Your task to perform on an android device: Open privacy settings Image 0: 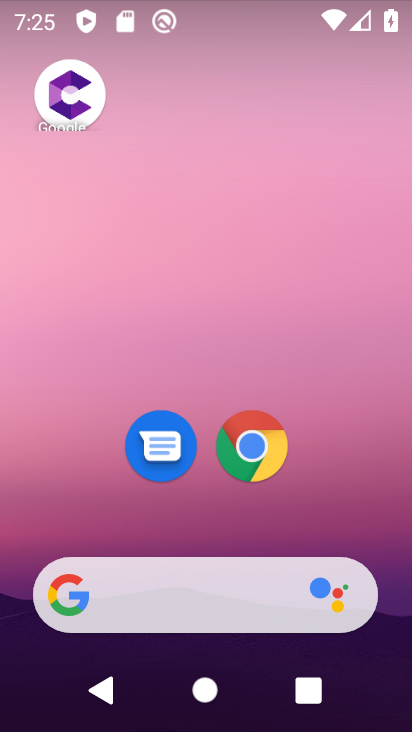
Step 0: drag from (399, 651) to (298, 0)
Your task to perform on an android device: Open privacy settings Image 1: 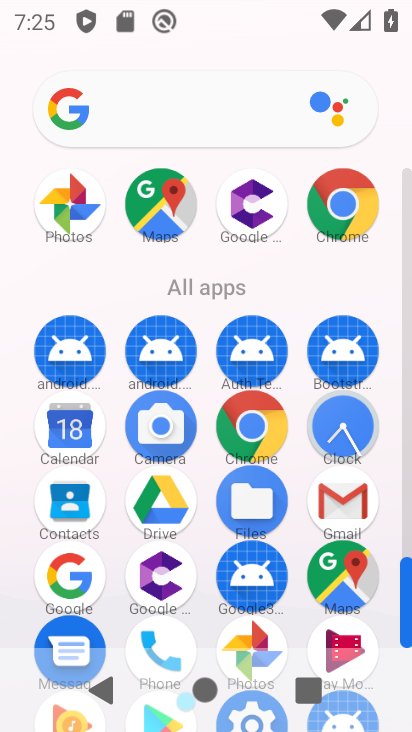
Step 1: drag from (6, 520) to (8, 198)
Your task to perform on an android device: Open privacy settings Image 2: 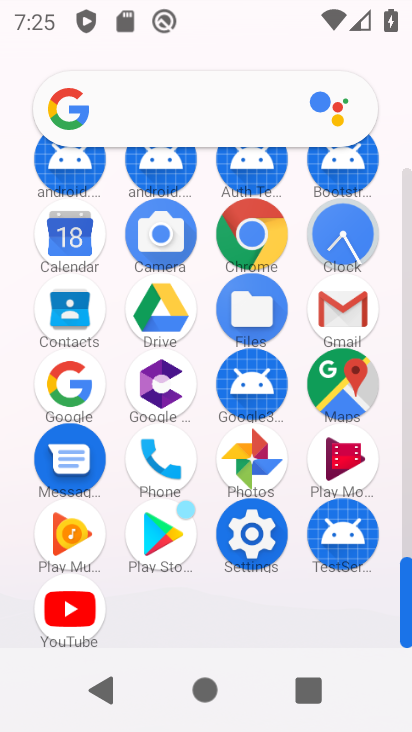
Step 2: click (249, 534)
Your task to perform on an android device: Open privacy settings Image 3: 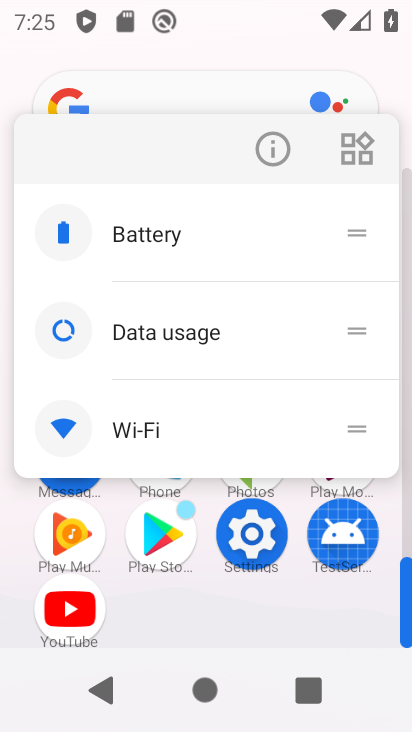
Step 3: press back button
Your task to perform on an android device: Open privacy settings Image 4: 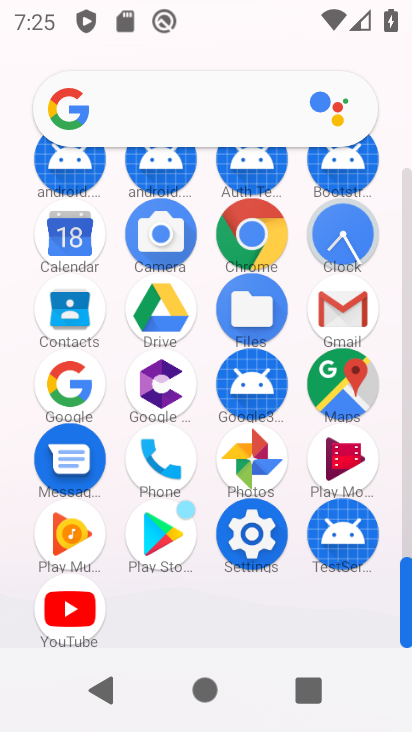
Step 4: click (254, 530)
Your task to perform on an android device: Open privacy settings Image 5: 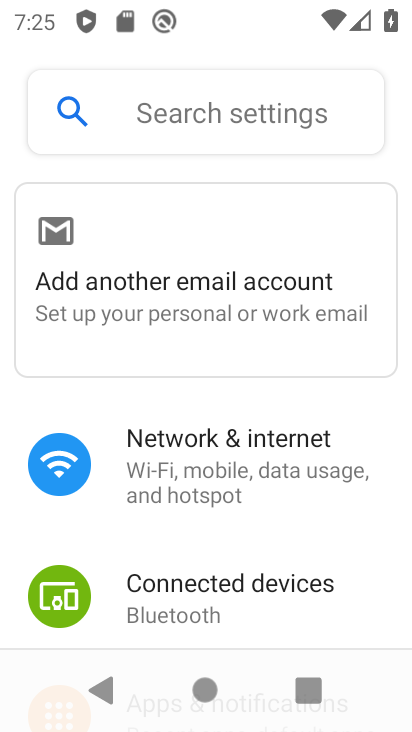
Step 5: click (251, 437)
Your task to perform on an android device: Open privacy settings Image 6: 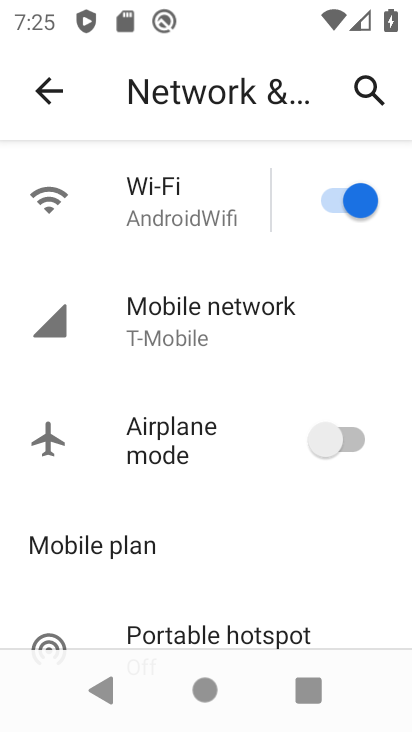
Step 6: click (165, 199)
Your task to perform on an android device: Open privacy settings Image 7: 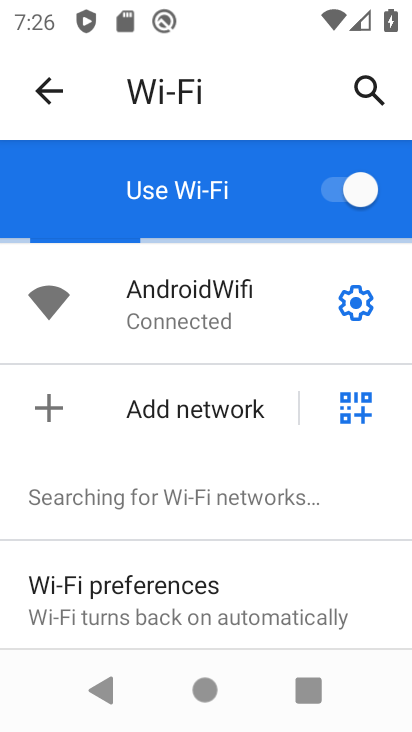
Step 7: task complete